Your task to perform on an android device: add a label to a message in the gmail app Image 0: 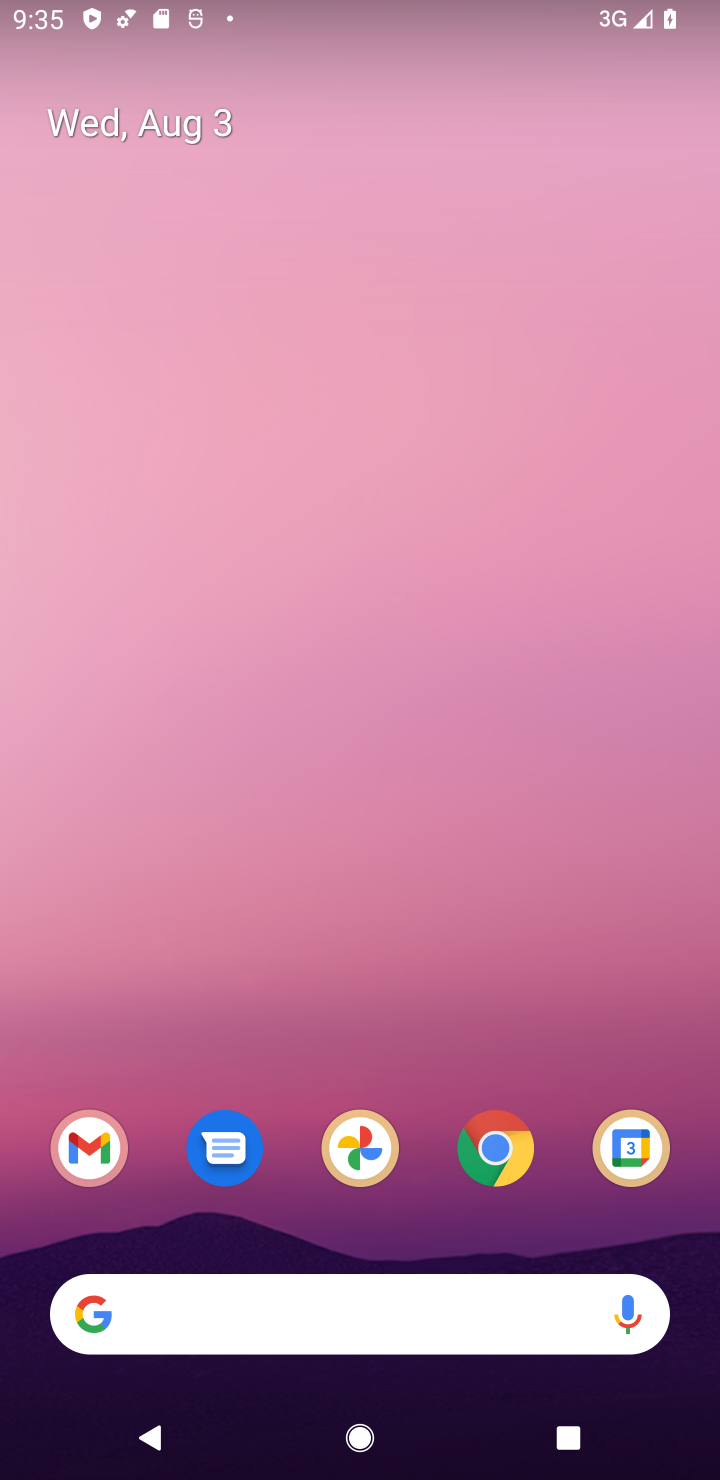
Step 0: drag from (508, 926) to (496, 302)
Your task to perform on an android device: add a label to a message in the gmail app Image 1: 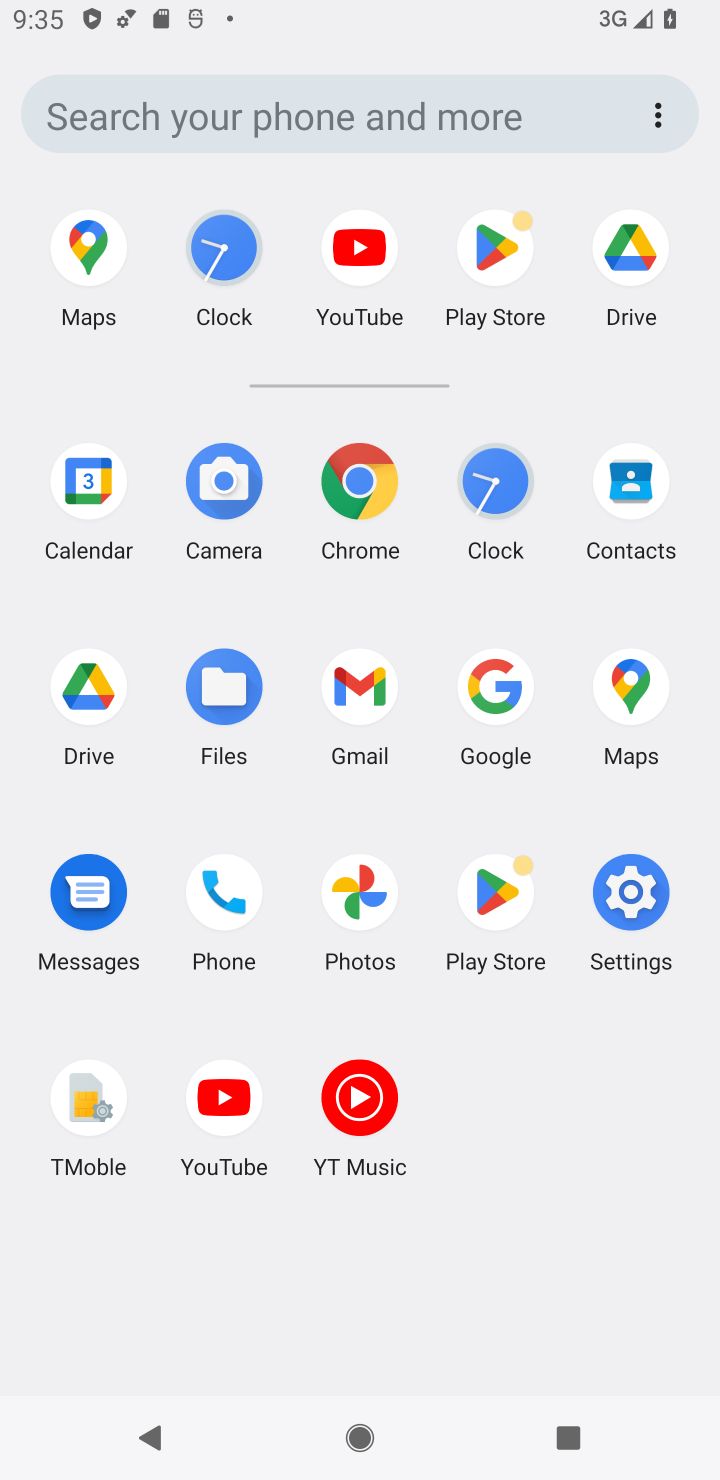
Step 1: click (349, 702)
Your task to perform on an android device: add a label to a message in the gmail app Image 2: 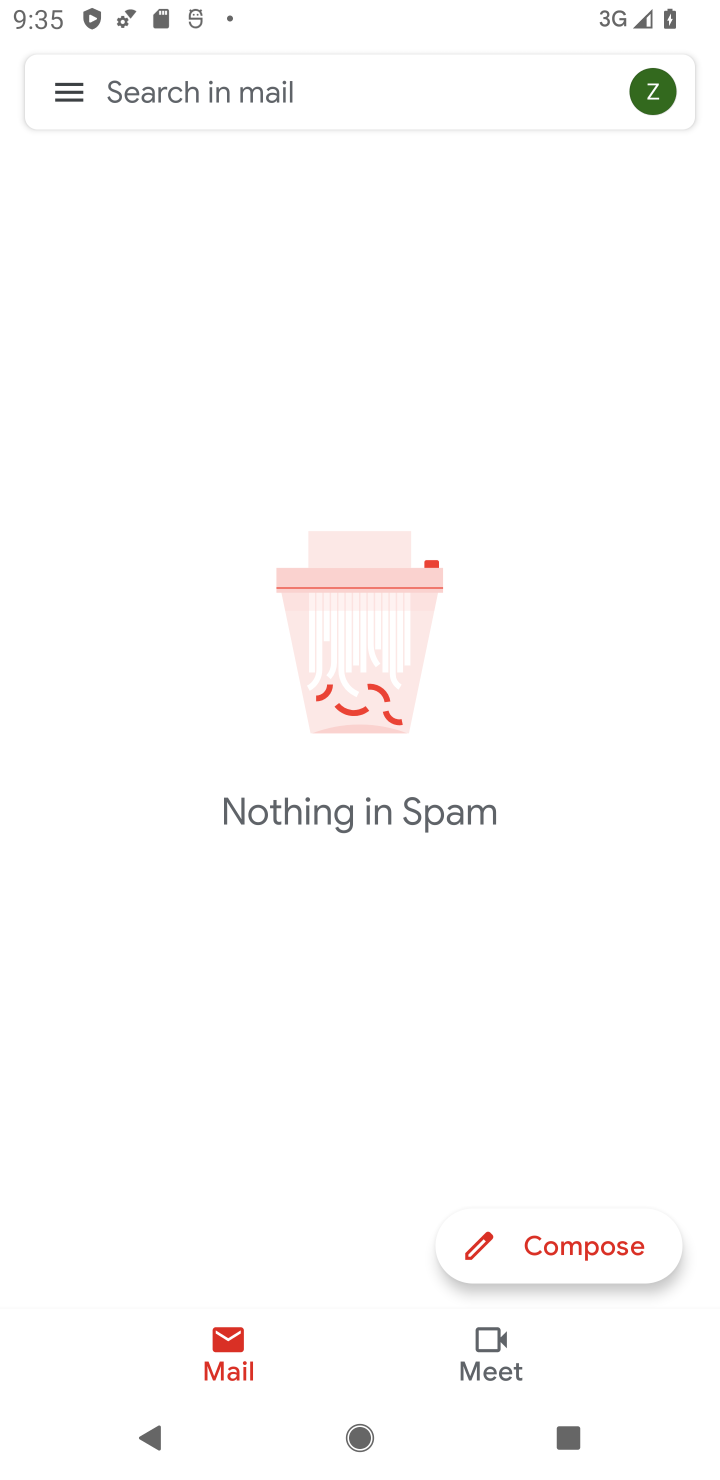
Step 2: task complete